Your task to perform on an android device: install app "Nova Launcher" Image 0: 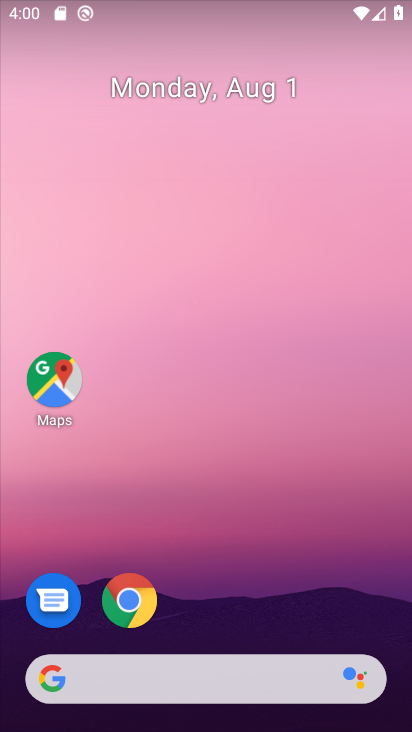
Step 0: drag from (273, 641) to (265, 50)
Your task to perform on an android device: install app "Nova Launcher" Image 1: 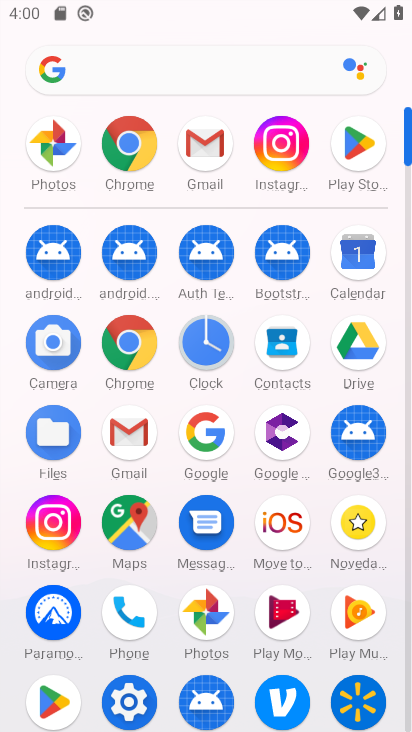
Step 1: click (375, 146)
Your task to perform on an android device: install app "Nova Launcher" Image 2: 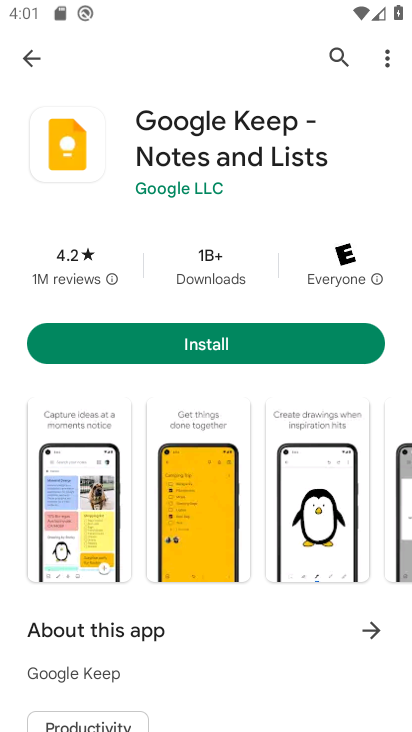
Step 2: click (330, 53)
Your task to perform on an android device: install app "Nova Launcher" Image 3: 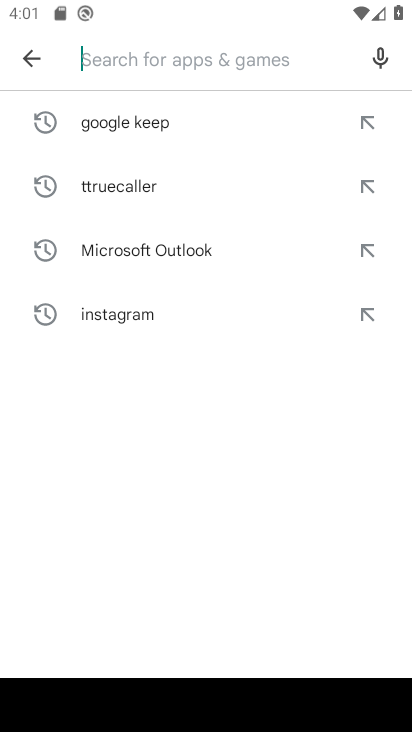
Step 3: type "Nova Launcher"
Your task to perform on an android device: install app "Nova Launcher" Image 4: 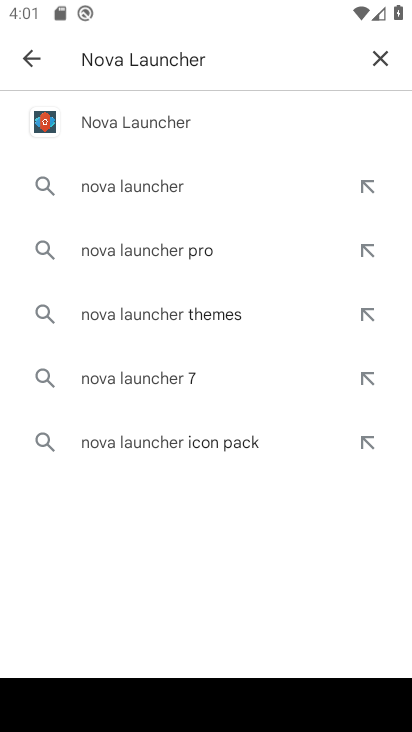
Step 4: press enter
Your task to perform on an android device: install app "Nova Launcher" Image 5: 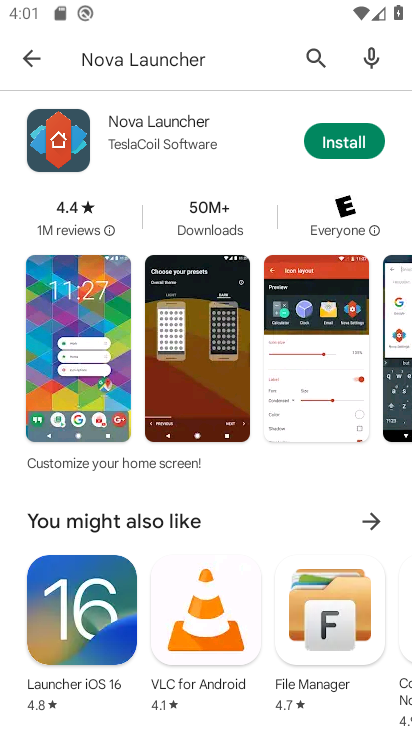
Step 5: click (358, 143)
Your task to perform on an android device: install app "Nova Launcher" Image 6: 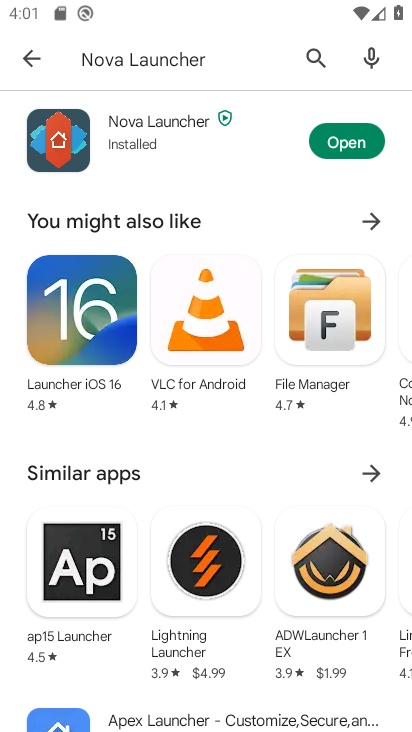
Step 6: task complete